Your task to perform on an android device: turn on bluetooth scan Image 0: 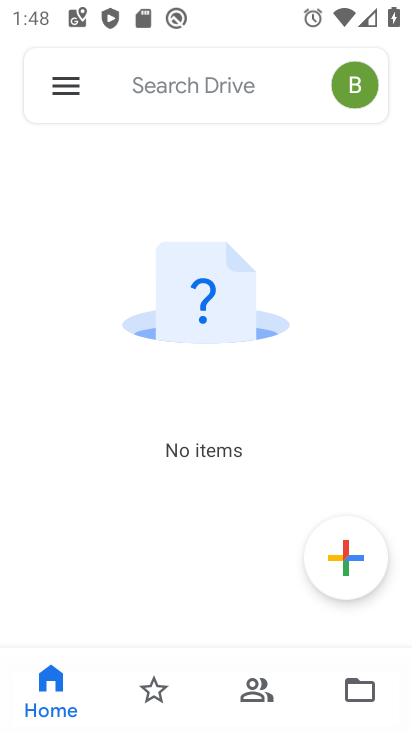
Step 0: press home button
Your task to perform on an android device: turn on bluetooth scan Image 1: 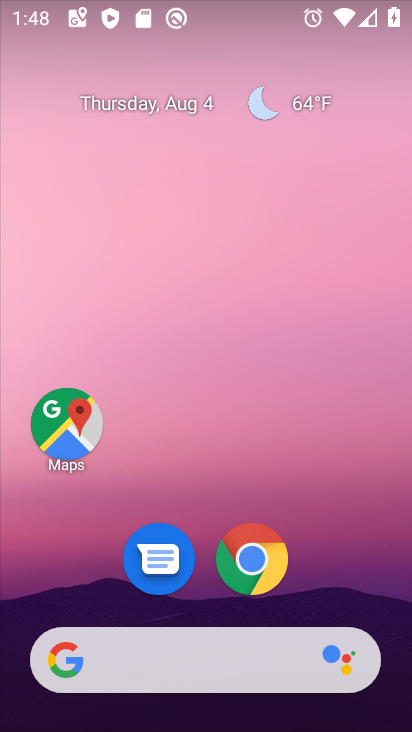
Step 1: drag from (166, 660) to (166, 22)
Your task to perform on an android device: turn on bluetooth scan Image 2: 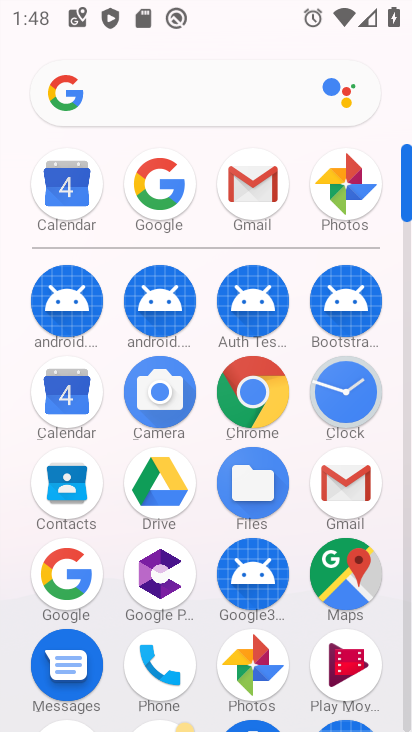
Step 2: drag from (106, 640) to (87, 341)
Your task to perform on an android device: turn on bluetooth scan Image 3: 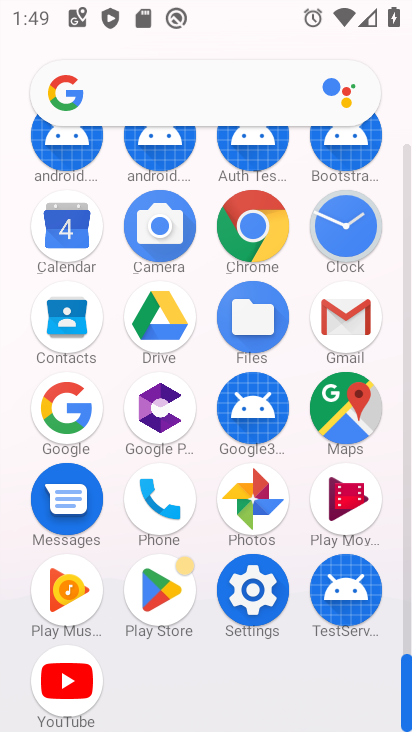
Step 3: click (253, 588)
Your task to perform on an android device: turn on bluetooth scan Image 4: 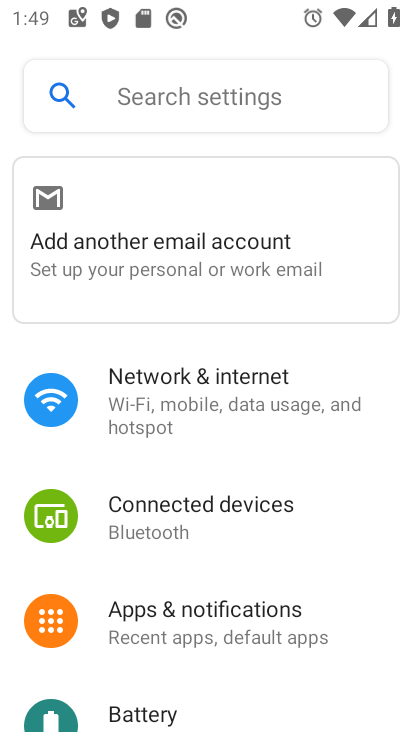
Step 4: drag from (253, 688) to (249, 510)
Your task to perform on an android device: turn on bluetooth scan Image 5: 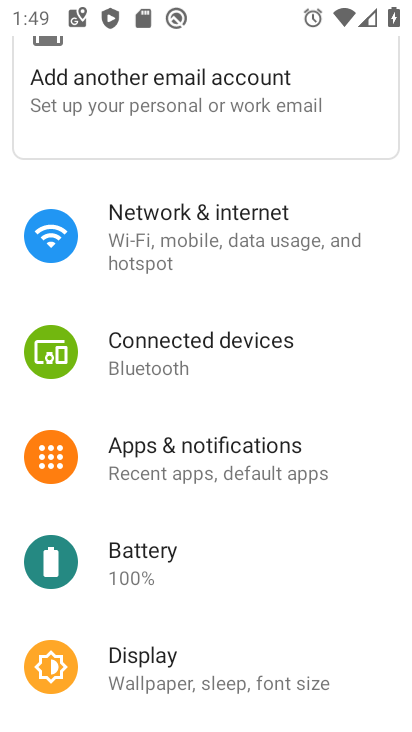
Step 5: drag from (255, 645) to (234, 439)
Your task to perform on an android device: turn on bluetooth scan Image 6: 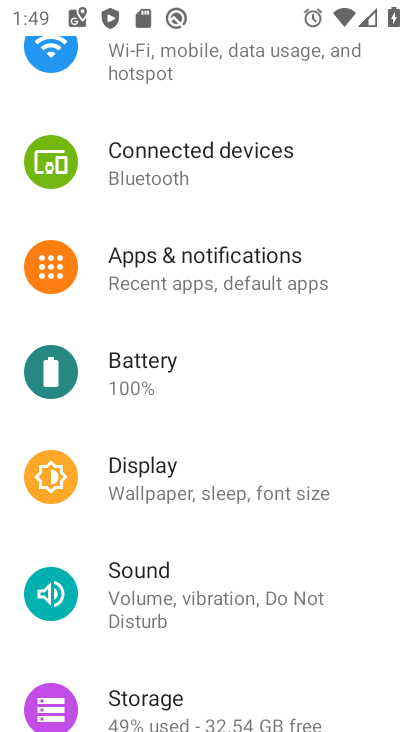
Step 6: drag from (208, 552) to (205, 419)
Your task to perform on an android device: turn on bluetooth scan Image 7: 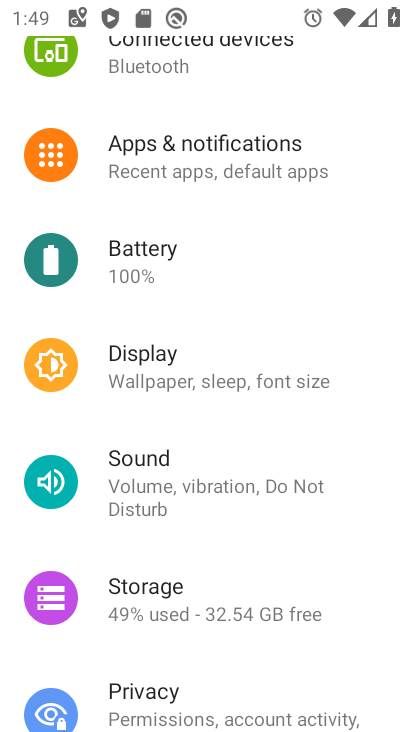
Step 7: drag from (229, 550) to (239, 448)
Your task to perform on an android device: turn on bluetooth scan Image 8: 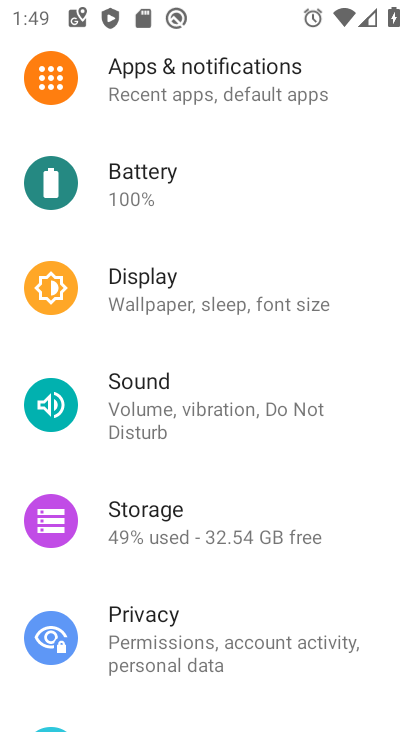
Step 8: drag from (229, 628) to (241, 470)
Your task to perform on an android device: turn on bluetooth scan Image 9: 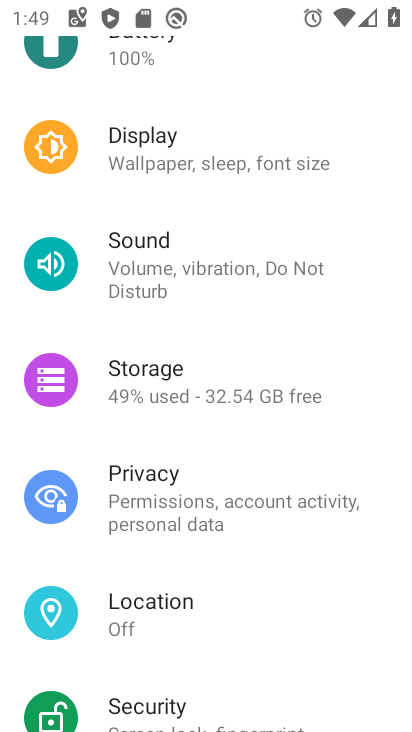
Step 9: drag from (229, 560) to (245, 427)
Your task to perform on an android device: turn on bluetooth scan Image 10: 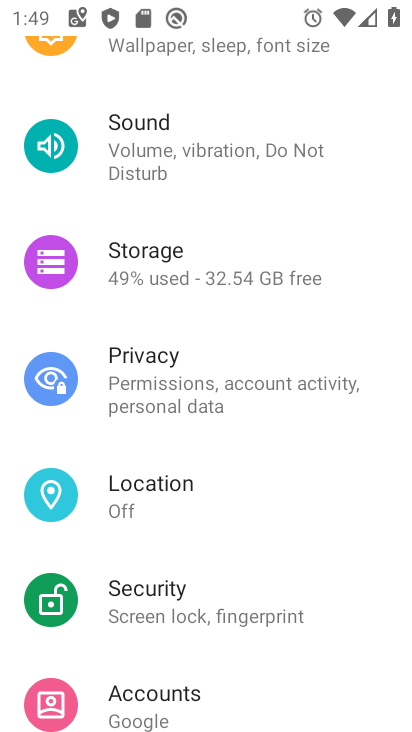
Step 10: click (171, 493)
Your task to perform on an android device: turn on bluetooth scan Image 11: 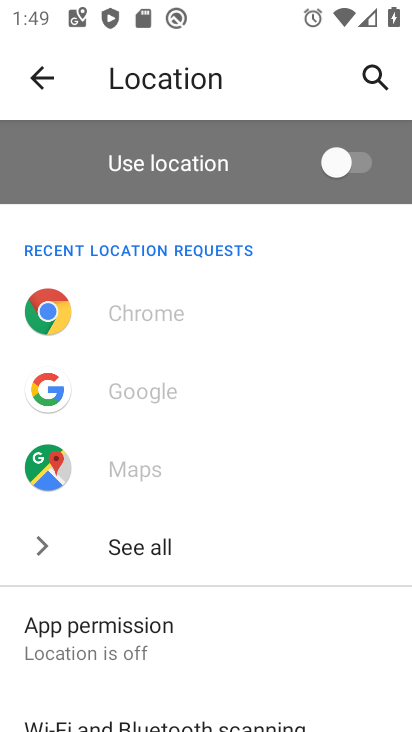
Step 11: drag from (176, 641) to (170, 336)
Your task to perform on an android device: turn on bluetooth scan Image 12: 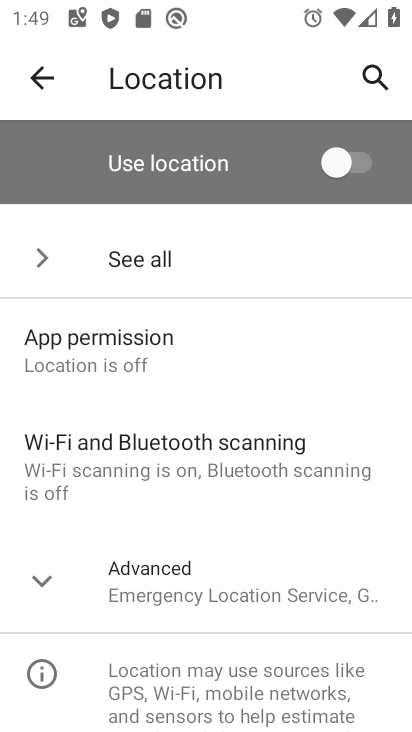
Step 12: click (214, 467)
Your task to perform on an android device: turn on bluetooth scan Image 13: 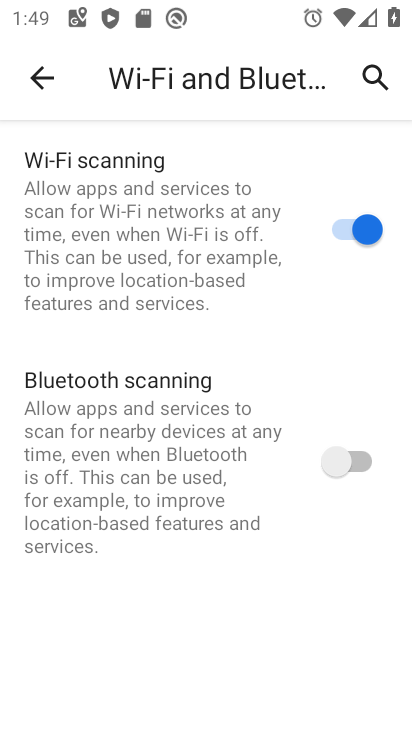
Step 13: click (343, 465)
Your task to perform on an android device: turn on bluetooth scan Image 14: 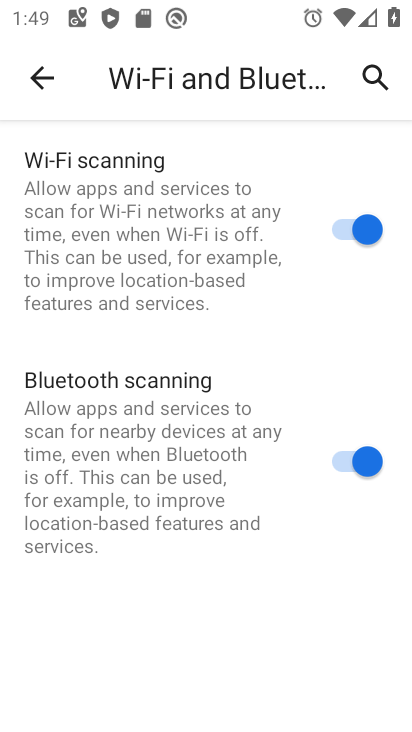
Step 14: task complete